Your task to perform on an android device: set an alarm Image 0: 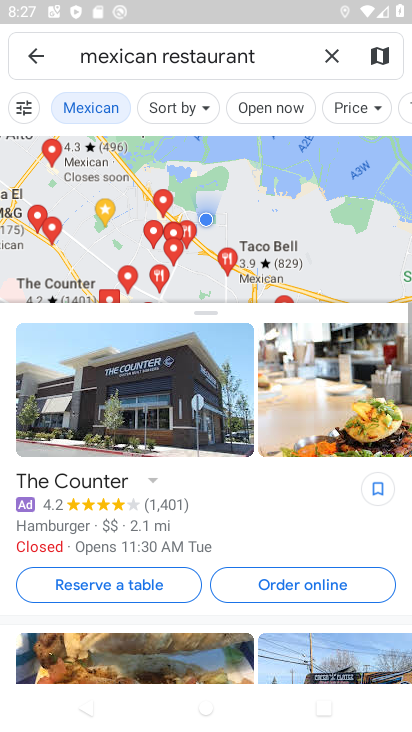
Step 0: press home button
Your task to perform on an android device: set an alarm Image 1: 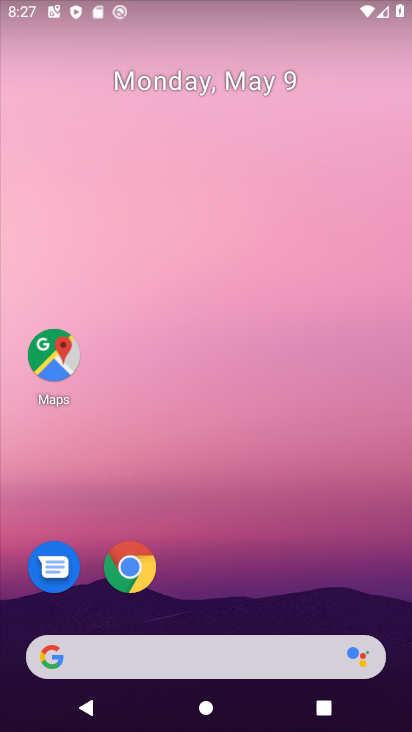
Step 1: drag from (369, 580) to (307, 224)
Your task to perform on an android device: set an alarm Image 2: 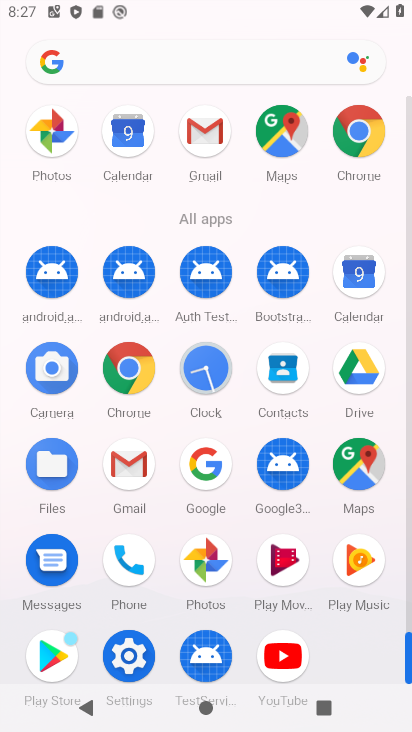
Step 2: click (210, 373)
Your task to perform on an android device: set an alarm Image 3: 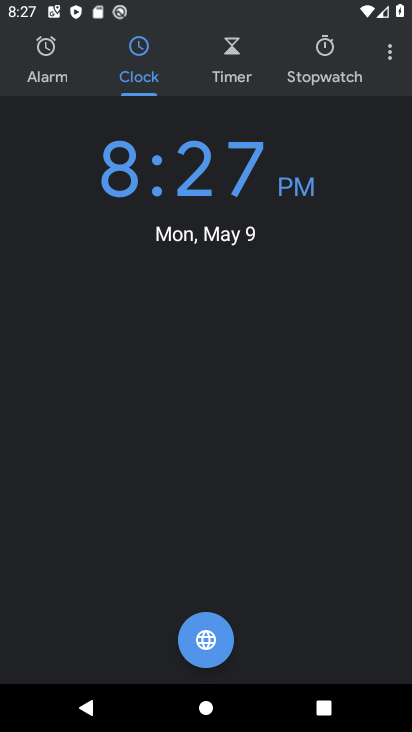
Step 3: click (52, 61)
Your task to perform on an android device: set an alarm Image 4: 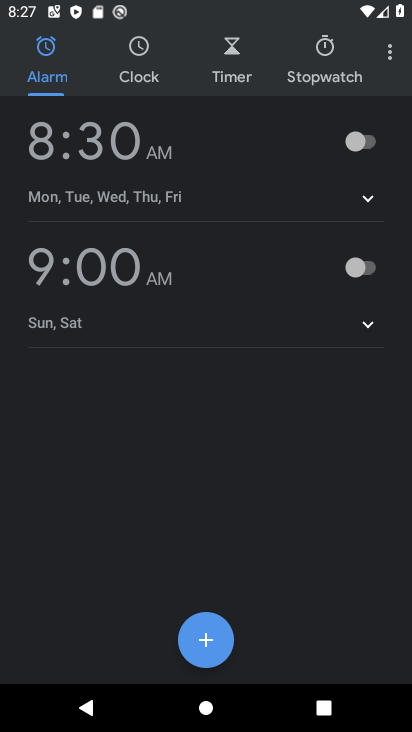
Step 4: click (203, 634)
Your task to perform on an android device: set an alarm Image 5: 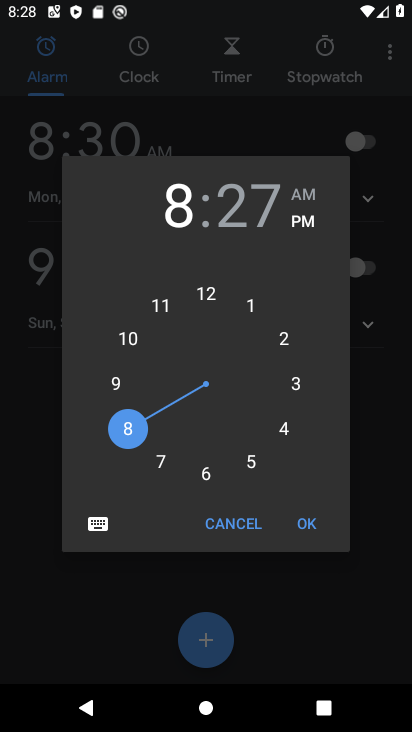
Step 5: click (294, 521)
Your task to perform on an android device: set an alarm Image 6: 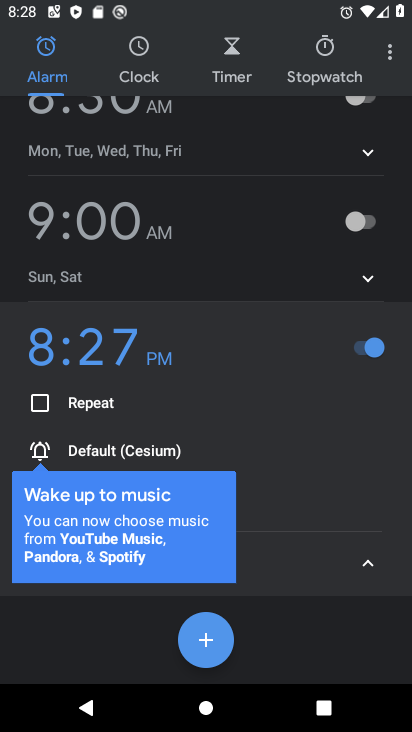
Step 6: task complete